Your task to perform on an android device: turn on the 24-hour format for clock Image 0: 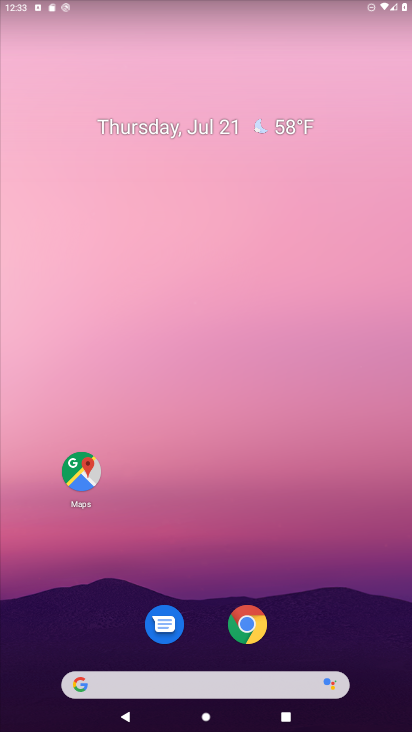
Step 0: drag from (206, 598) to (200, 203)
Your task to perform on an android device: turn on the 24-hour format for clock Image 1: 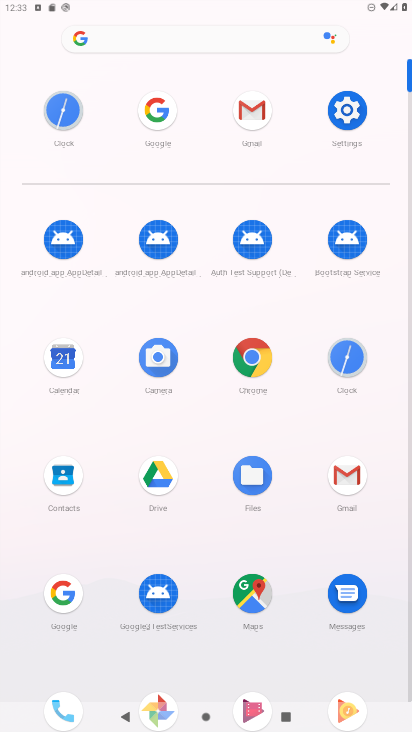
Step 1: click (356, 352)
Your task to perform on an android device: turn on the 24-hour format for clock Image 2: 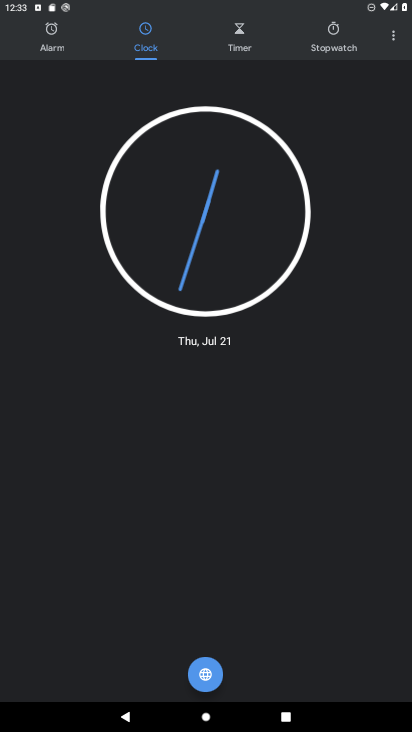
Step 2: click (391, 34)
Your task to perform on an android device: turn on the 24-hour format for clock Image 3: 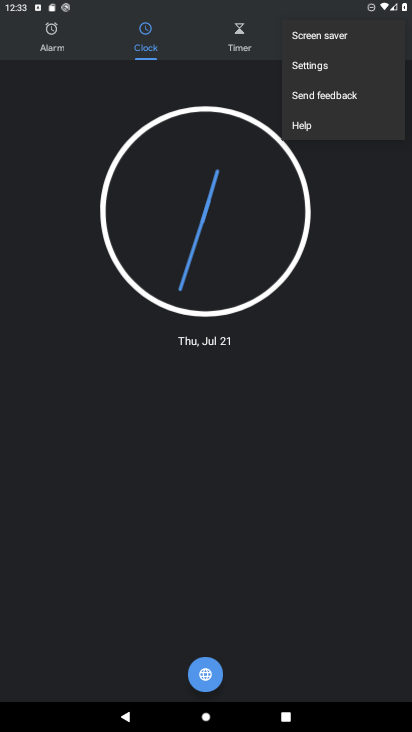
Step 3: click (321, 72)
Your task to perform on an android device: turn on the 24-hour format for clock Image 4: 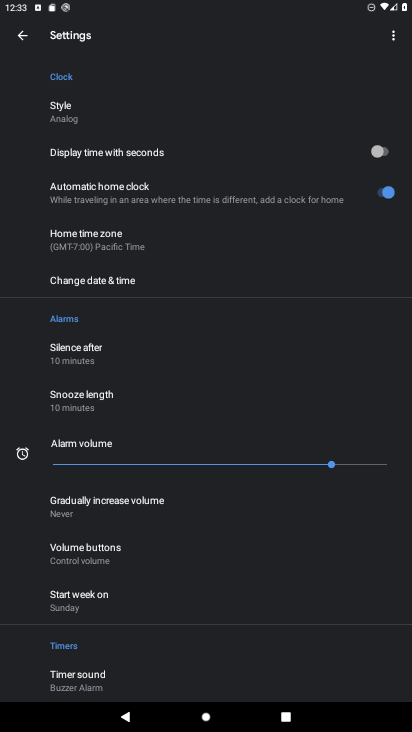
Step 4: click (180, 273)
Your task to perform on an android device: turn on the 24-hour format for clock Image 5: 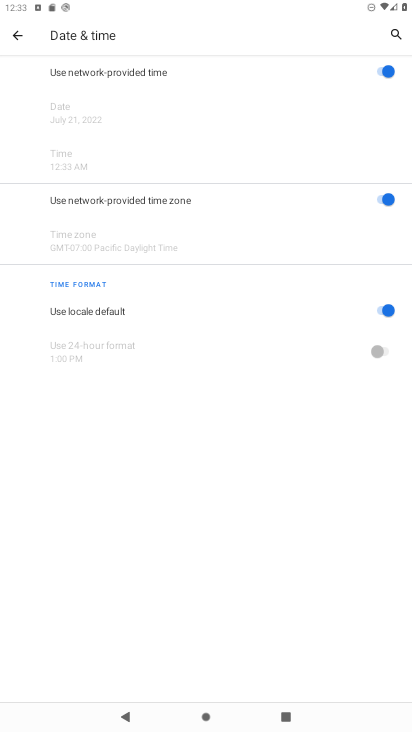
Step 5: click (382, 308)
Your task to perform on an android device: turn on the 24-hour format for clock Image 6: 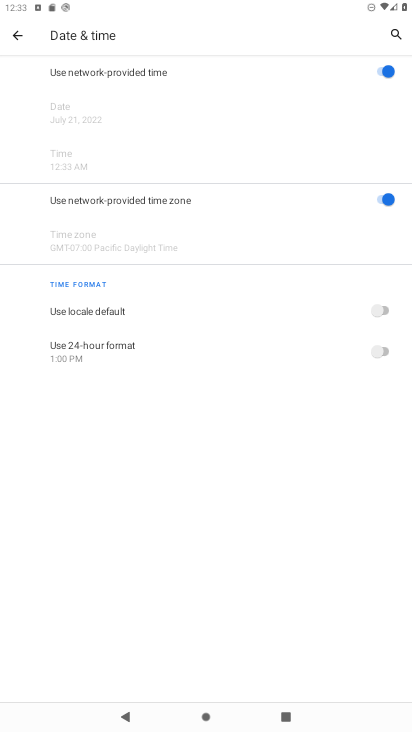
Step 6: click (386, 348)
Your task to perform on an android device: turn on the 24-hour format for clock Image 7: 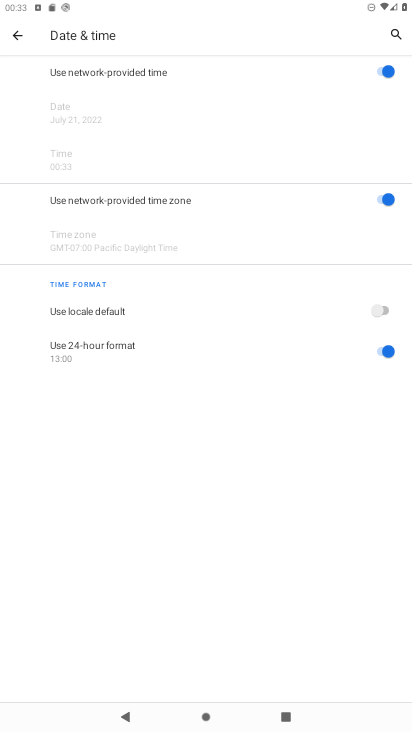
Step 7: task complete